Your task to perform on an android device: Open Chrome and go to settings Image 0: 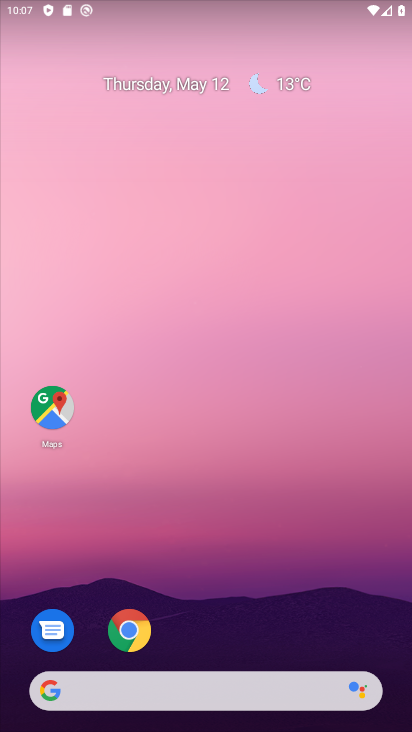
Step 0: click (120, 619)
Your task to perform on an android device: Open Chrome and go to settings Image 1: 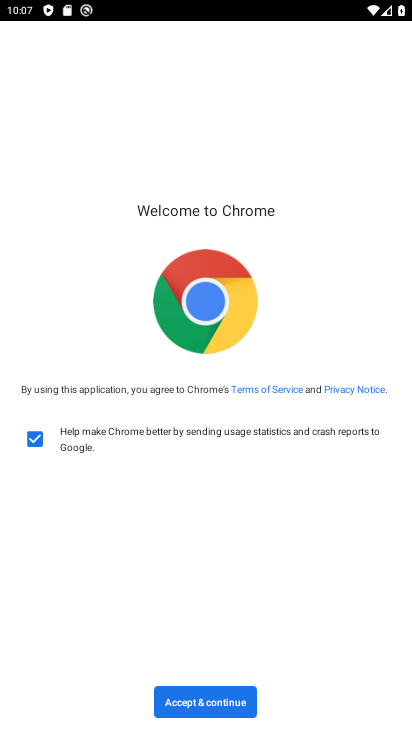
Step 1: click (248, 693)
Your task to perform on an android device: Open Chrome and go to settings Image 2: 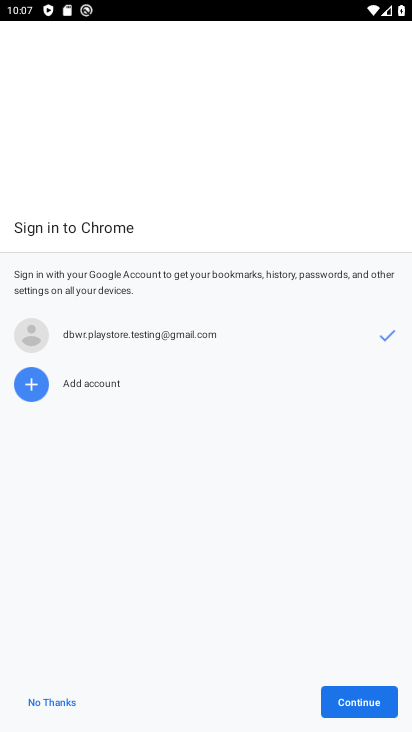
Step 2: click (361, 704)
Your task to perform on an android device: Open Chrome and go to settings Image 3: 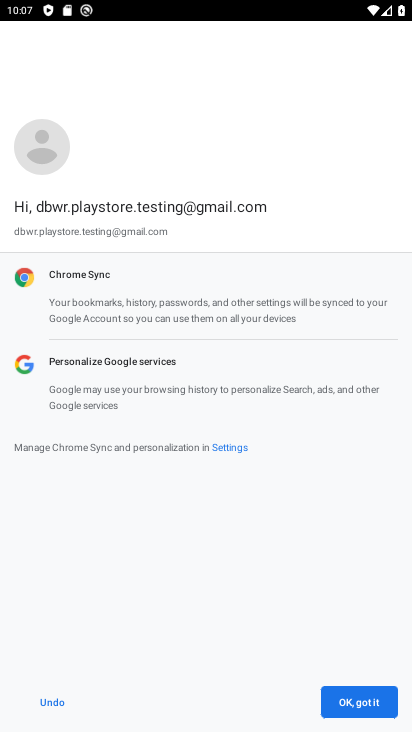
Step 3: click (361, 704)
Your task to perform on an android device: Open Chrome and go to settings Image 4: 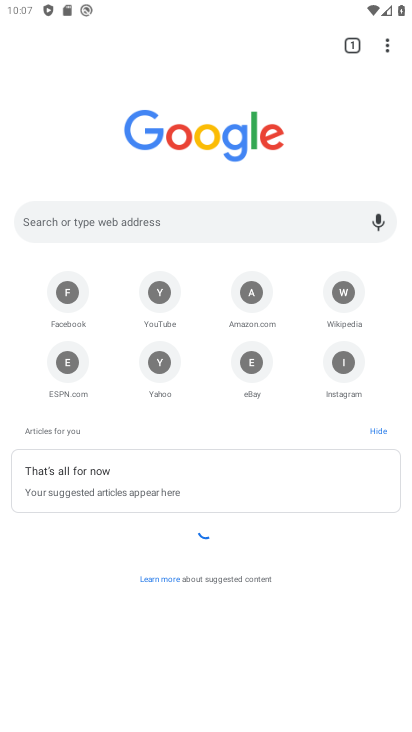
Step 4: click (379, 55)
Your task to perform on an android device: Open Chrome and go to settings Image 5: 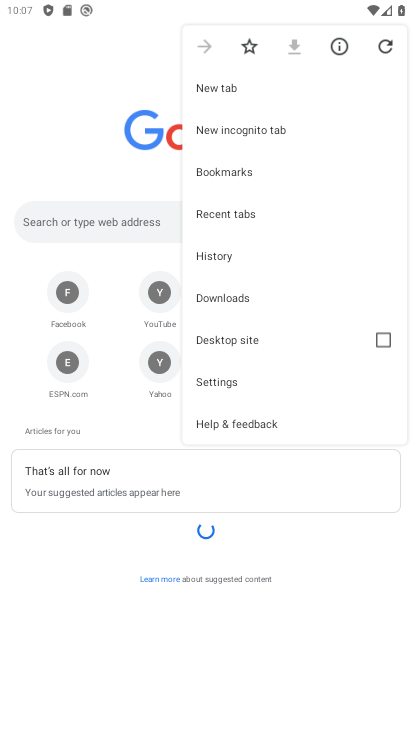
Step 5: click (211, 391)
Your task to perform on an android device: Open Chrome and go to settings Image 6: 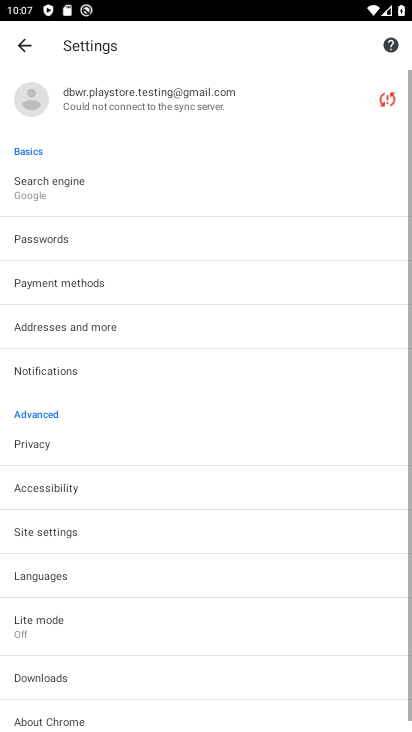
Step 6: task complete